Your task to perform on an android device: toggle wifi Image 0: 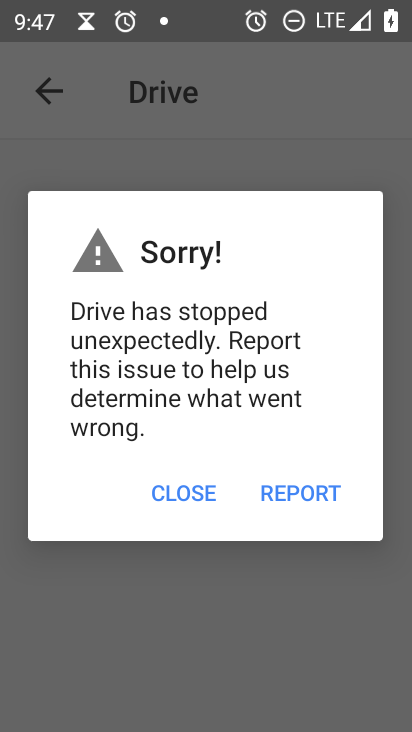
Step 0: press home button
Your task to perform on an android device: toggle wifi Image 1: 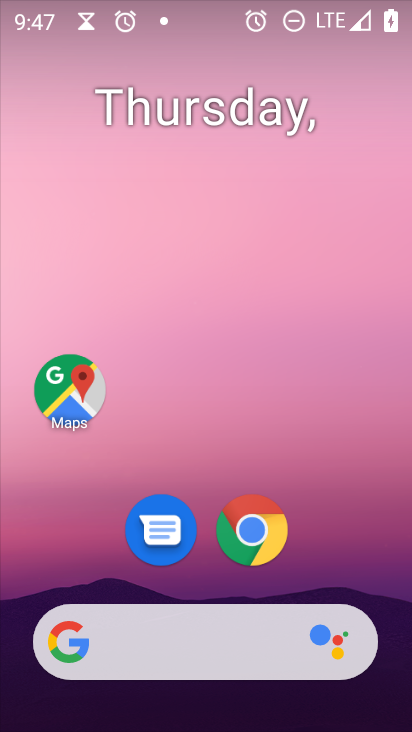
Step 1: drag from (343, 578) to (251, 23)
Your task to perform on an android device: toggle wifi Image 2: 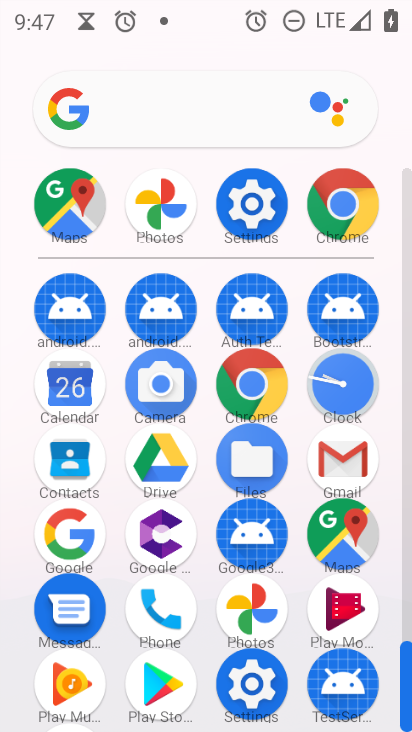
Step 2: drag from (18, 575) to (27, 230)
Your task to perform on an android device: toggle wifi Image 3: 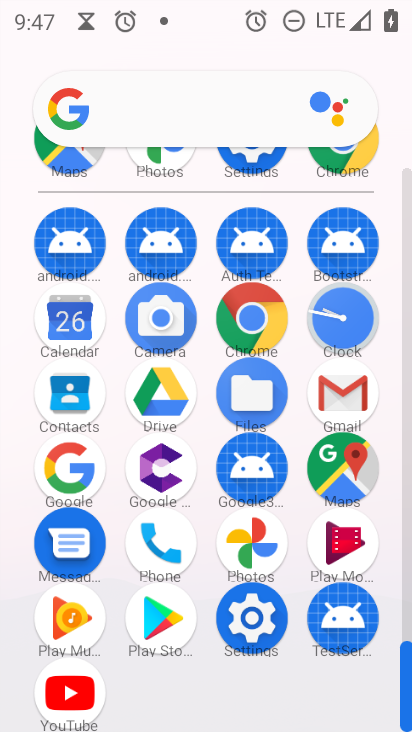
Step 3: click (251, 619)
Your task to perform on an android device: toggle wifi Image 4: 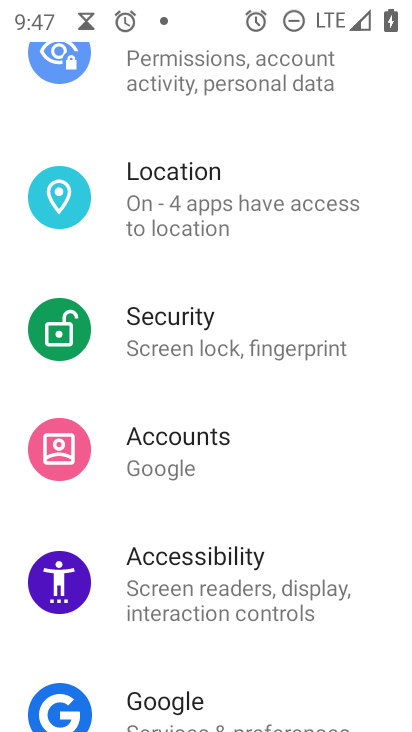
Step 4: drag from (289, 150) to (290, 628)
Your task to perform on an android device: toggle wifi Image 5: 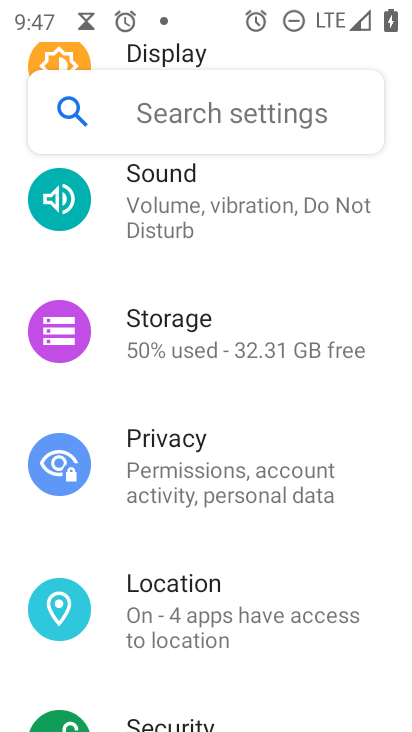
Step 5: drag from (296, 211) to (297, 639)
Your task to perform on an android device: toggle wifi Image 6: 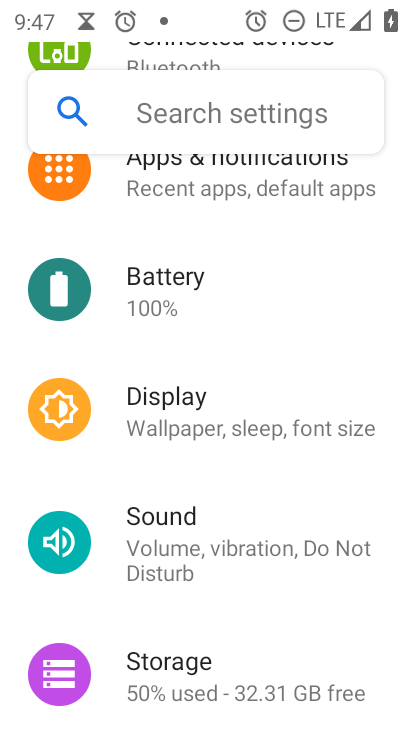
Step 6: drag from (292, 231) to (297, 651)
Your task to perform on an android device: toggle wifi Image 7: 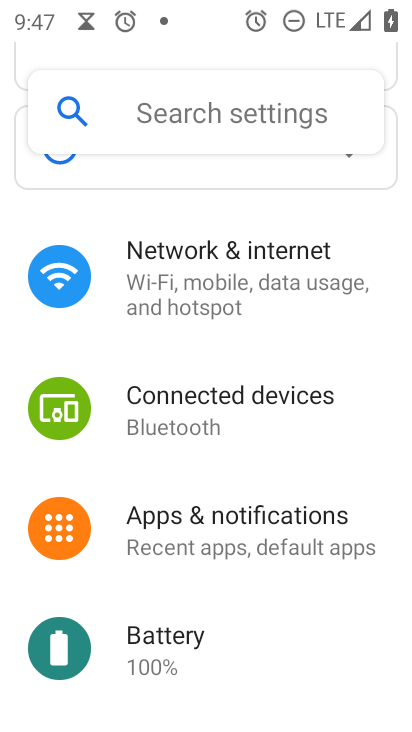
Step 7: click (273, 289)
Your task to perform on an android device: toggle wifi Image 8: 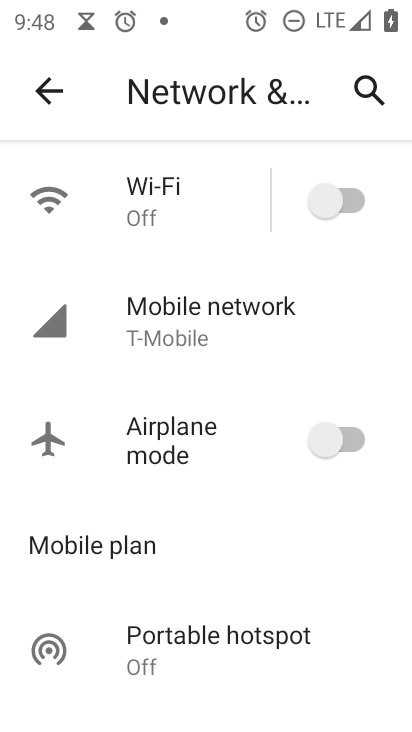
Step 8: task complete